Your task to perform on an android device: turn off picture-in-picture Image 0: 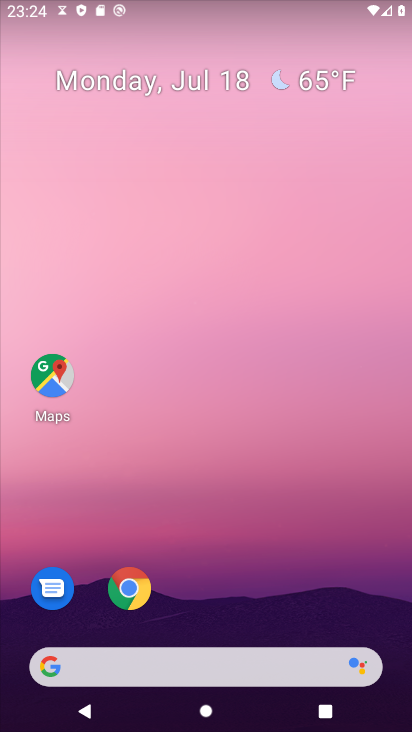
Step 0: click (140, 588)
Your task to perform on an android device: turn off picture-in-picture Image 1: 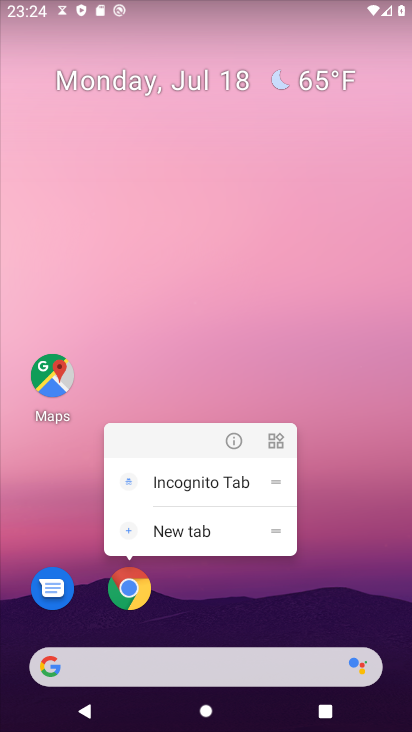
Step 1: click (232, 442)
Your task to perform on an android device: turn off picture-in-picture Image 2: 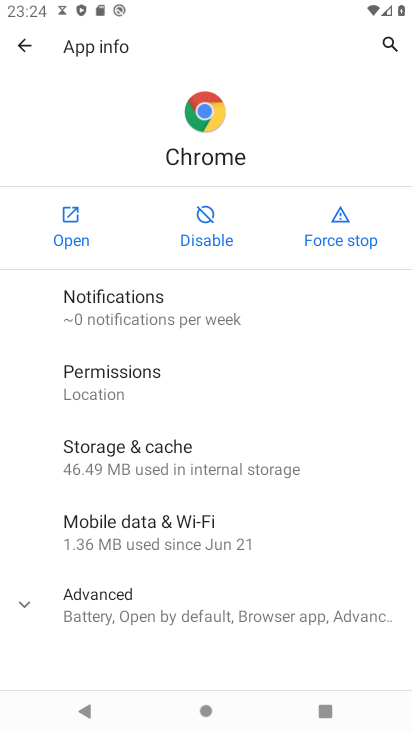
Step 2: drag from (139, 565) to (192, 231)
Your task to perform on an android device: turn off picture-in-picture Image 3: 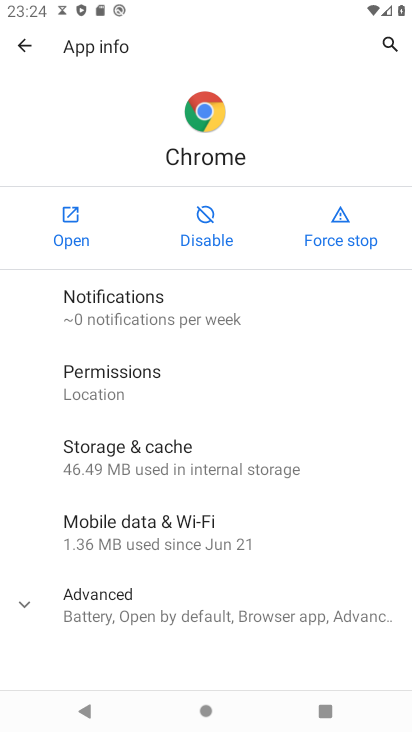
Step 3: click (23, 601)
Your task to perform on an android device: turn off picture-in-picture Image 4: 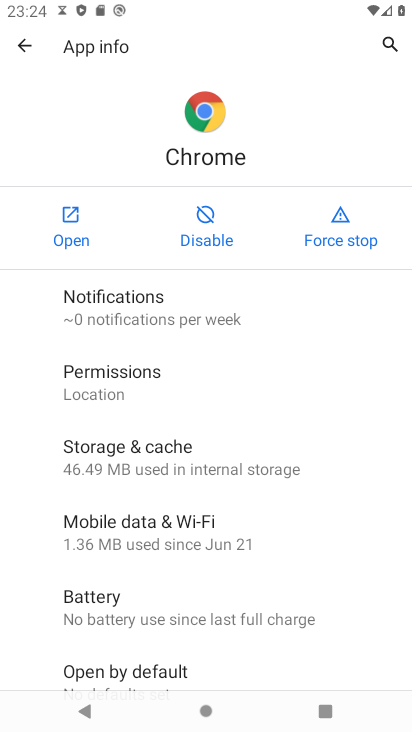
Step 4: drag from (277, 578) to (252, 278)
Your task to perform on an android device: turn off picture-in-picture Image 5: 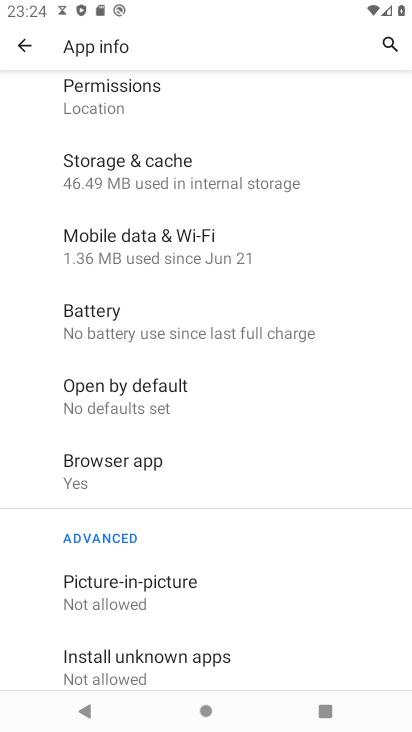
Step 5: click (124, 598)
Your task to perform on an android device: turn off picture-in-picture Image 6: 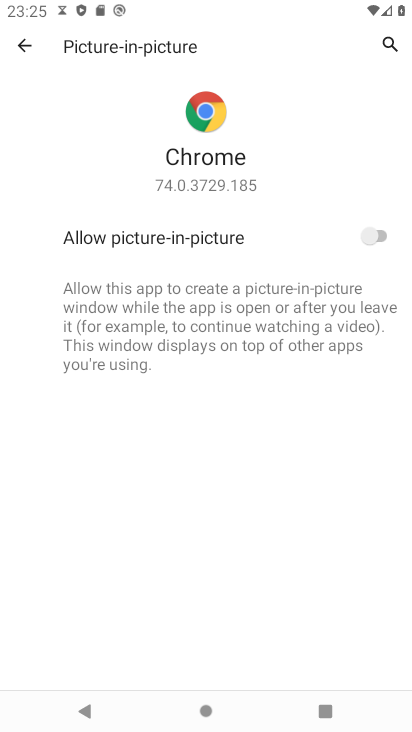
Step 6: task complete